Your task to perform on an android device: turn on javascript in the chrome app Image 0: 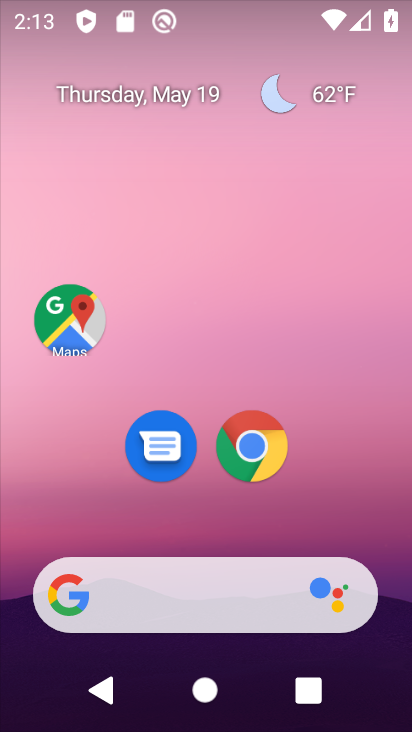
Step 0: click (250, 445)
Your task to perform on an android device: turn on javascript in the chrome app Image 1: 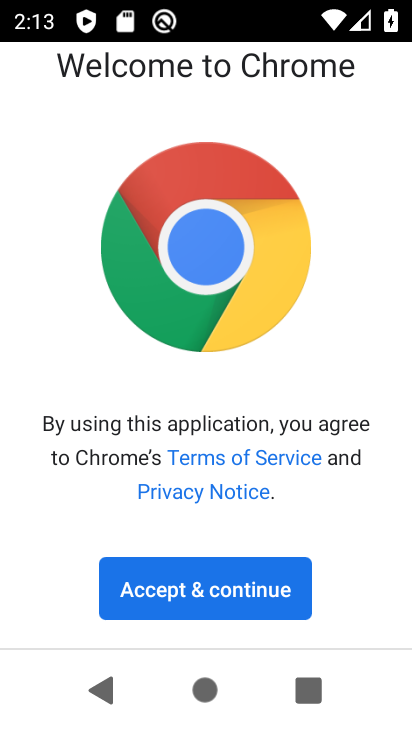
Step 1: click (217, 576)
Your task to perform on an android device: turn on javascript in the chrome app Image 2: 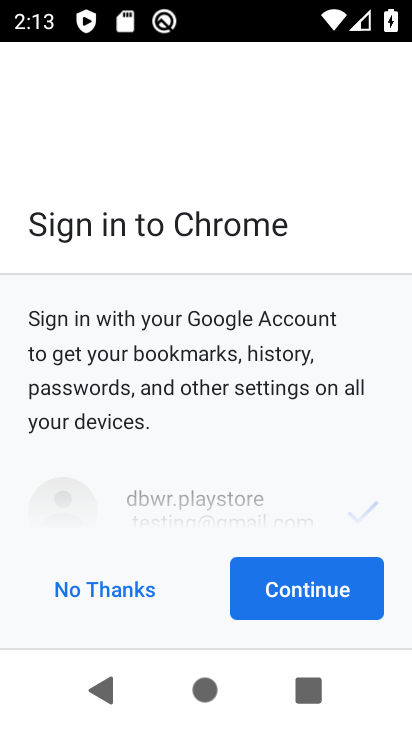
Step 2: click (266, 582)
Your task to perform on an android device: turn on javascript in the chrome app Image 3: 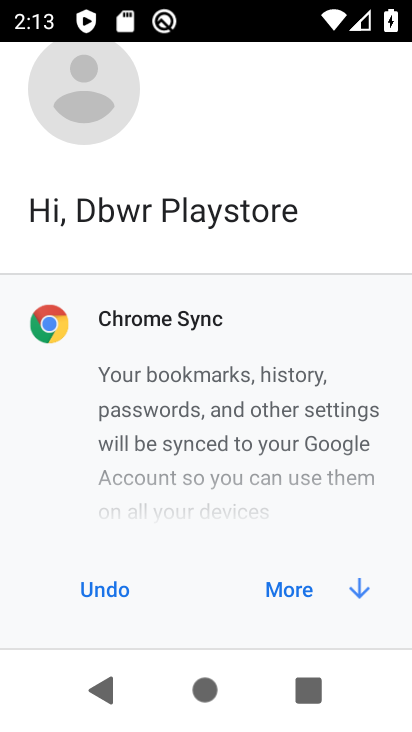
Step 3: click (268, 585)
Your task to perform on an android device: turn on javascript in the chrome app Image 4: 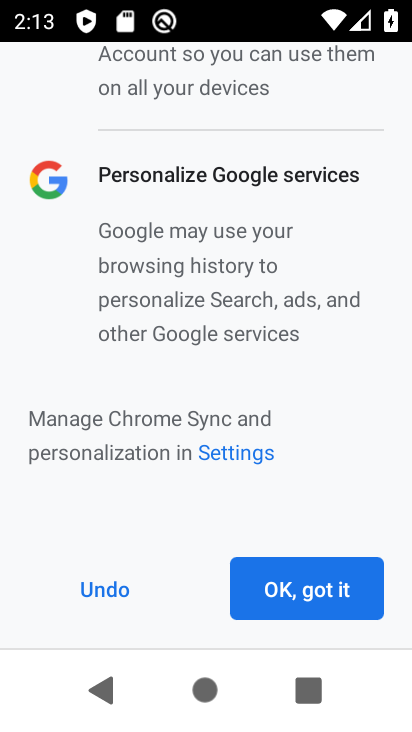
Step 4: click (279, 585)
Your task to perform on an android device: turn on javascript in the chrome app Image 5: 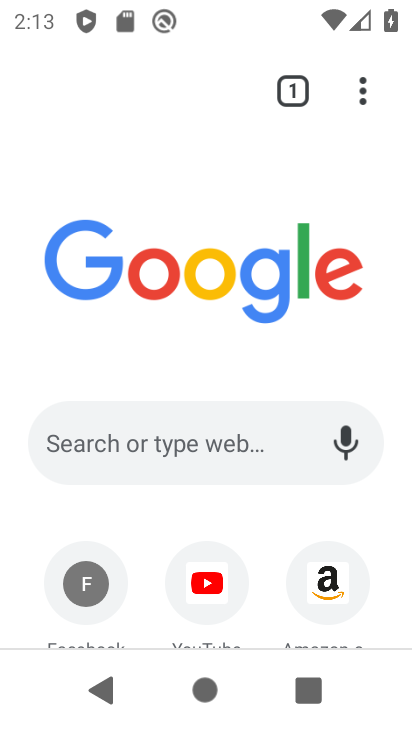
Step 5: click (361, 92)
Your task to perform on an android device: turn on javascript in the chrome app Image 6: 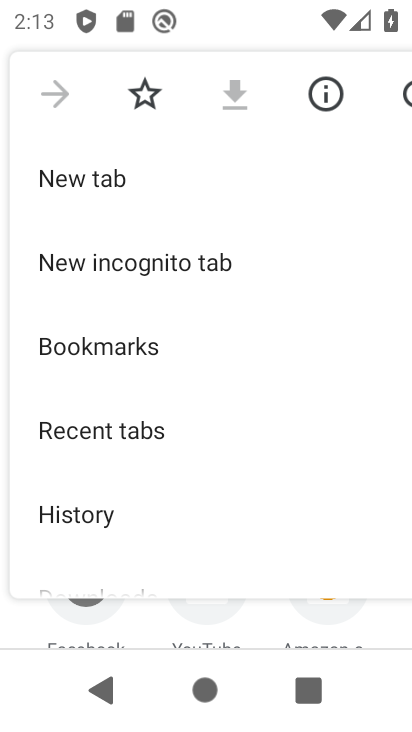
Step 6: drag from (232, 557) to (245, 386)
Your task to perform on an android device: turn on javascript in the chrome app Image 7: 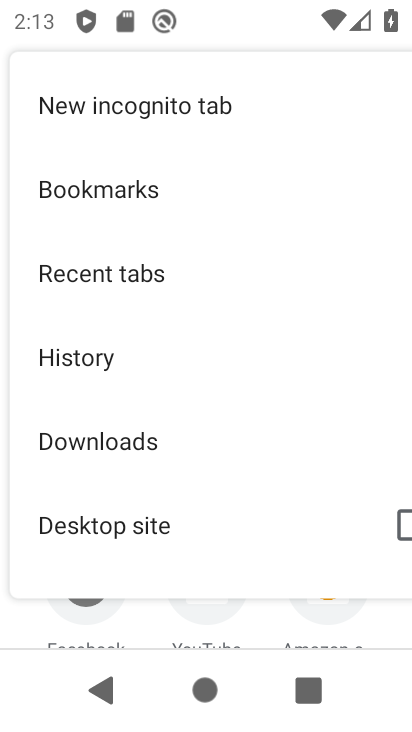
Step 7: drag from (213, 538) to (194, 383)
Your task to perform on an android device: turn on javascript in the chrome app Image 8: 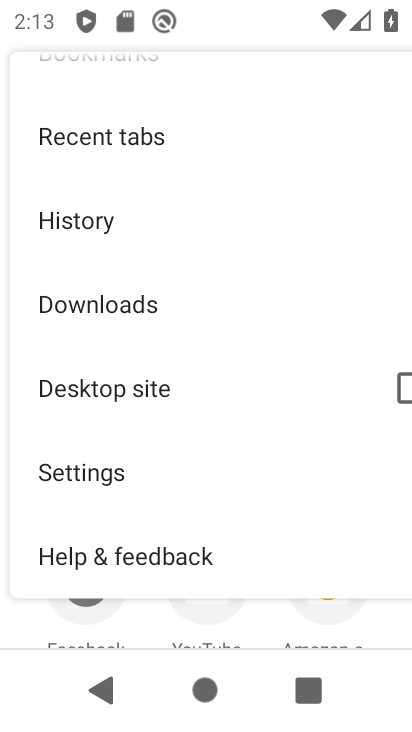
Step 8: click (86, 469)
Your task to perform on an android device: turn on javascript in the chrome app Image 9: 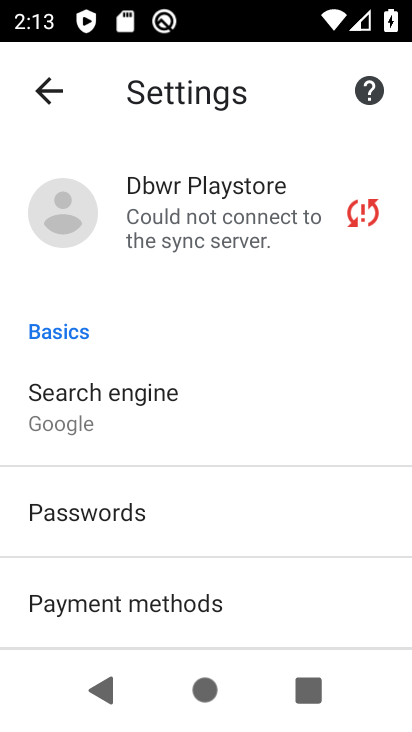
Step 9: drag from (283, 598) to (266, 505)
Your task to perform on an android device: turn on javascript in the chrome app Image 10: 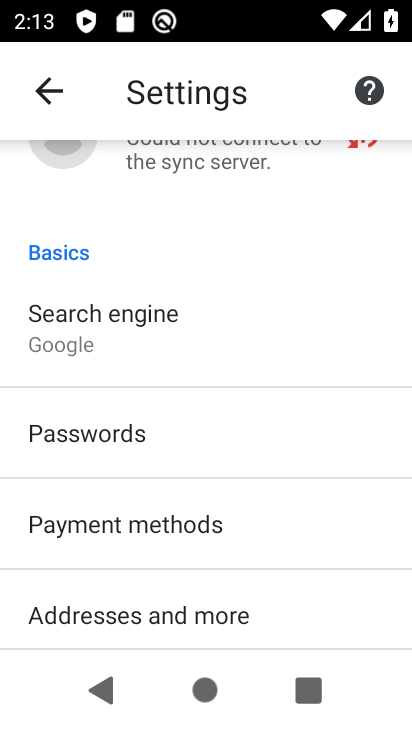
Step 10: drag from (310, 591) to (293, 241)
Your task to perform on an android device: turn on javascript in the chrome app Image 11: 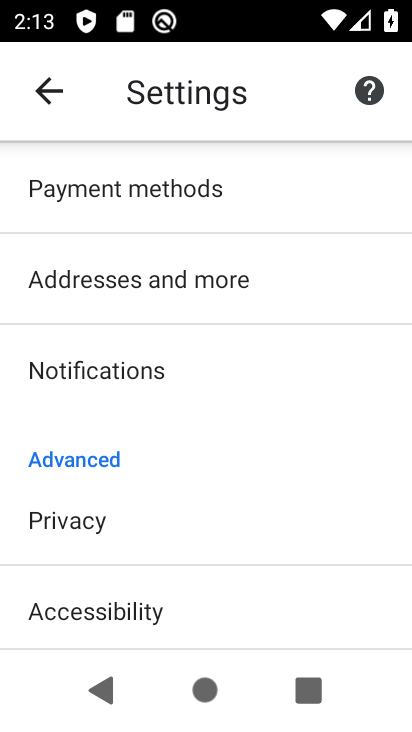
Step 11: drag from (311, 623) to (293, 414)
Your task to perform on an android device: turn on javascript in the chrome app Image 12: 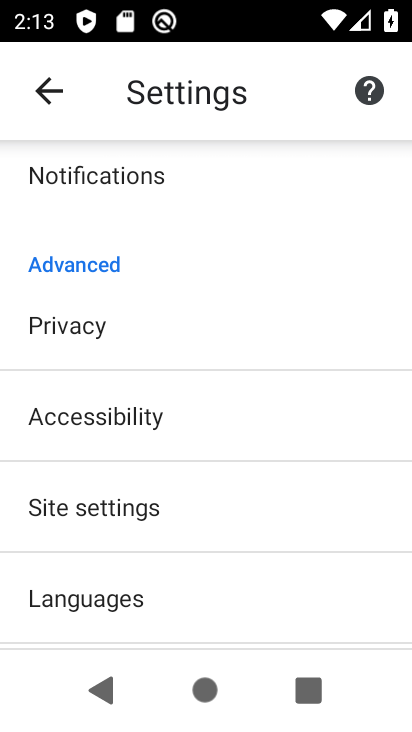
Step 12: drag from (282, 627) to (268, 434)
Your task to perform on an android device: turn on javascript in the chrome app Image 13: 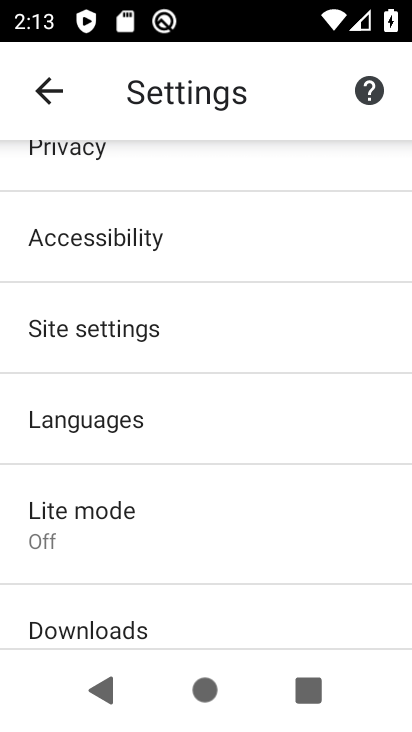
Step 13: click (84, 323)
Your task to perform on an android device: turn on javascript in the chrome app Image 14: 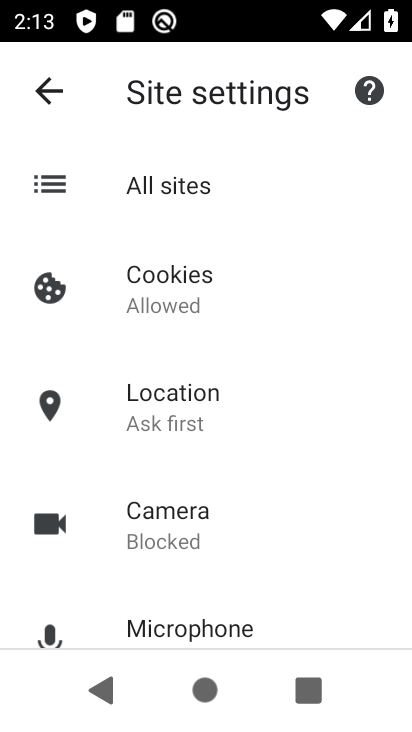
Step 14: drag from (304, 625) to (282, 484)
Your task to perform on an android device: turn on javascript in the chrome app Image 15: 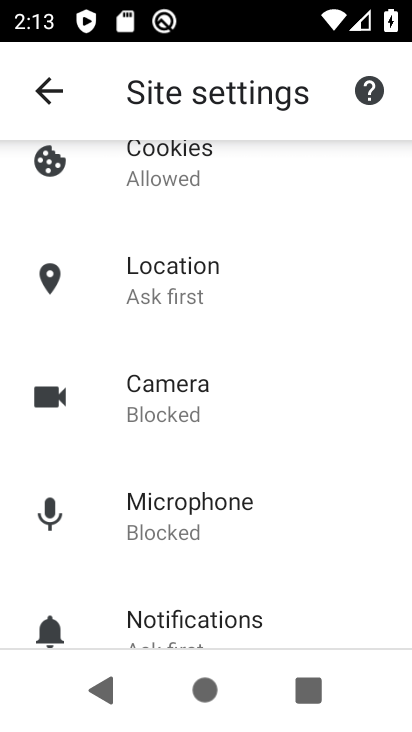
Step 15: drag from (306, 613) to (305, 292)
Your task to perform on an android device: turn on javascript in the chrome app Image 16: 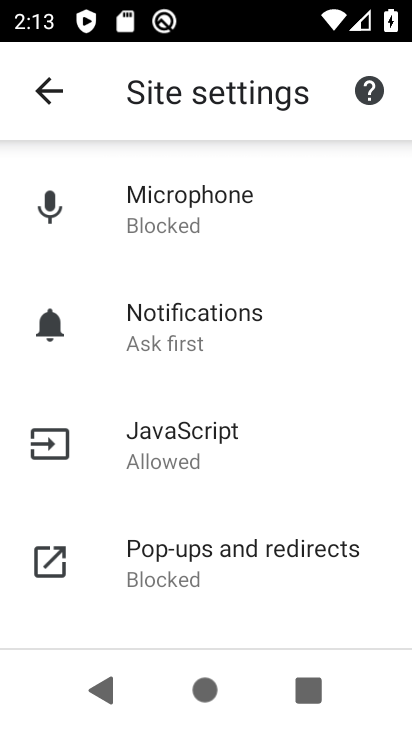
Step 16: click (170, 426)
Your task to perform on an android device: turn on javascript in the chrome app Image 17: 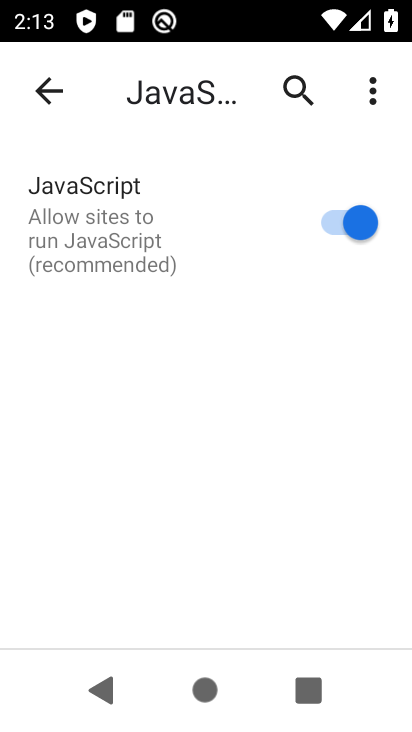
Step 17: task complete